Your task to perform on an android device: Open eBay Image 0: 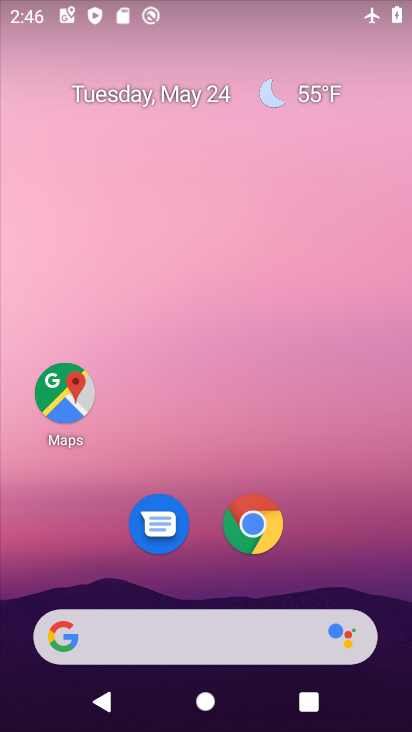
Step 0: drag from (210, 481) to (248, 52)
Your task to perform on an android device: Open eBay Image 1: 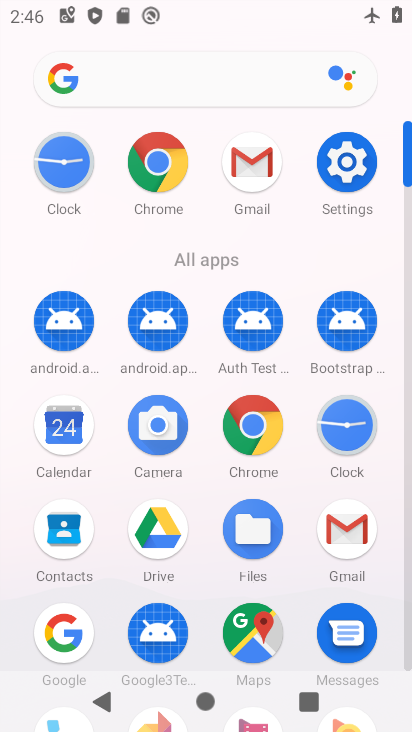
Step 1: click (202, 84)
Your task to perform on an android device: Open eBay Image 2: 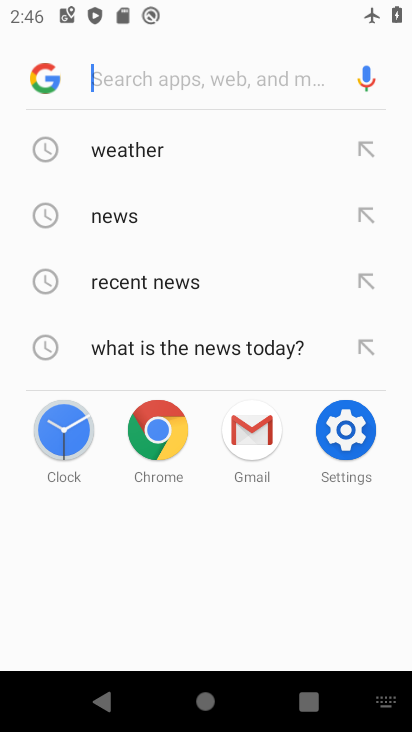
Step 2: type "ebay"
Your task to perform on an android device: Open eBay Image 3: 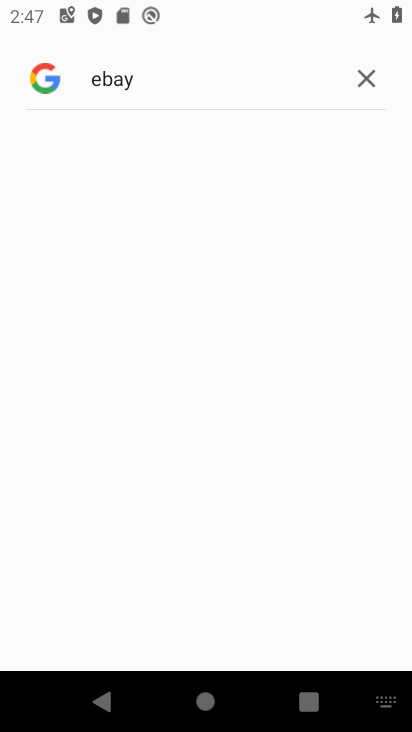
Step 3: task complete